Your task to perform on an android device: Open network settings Image 0: 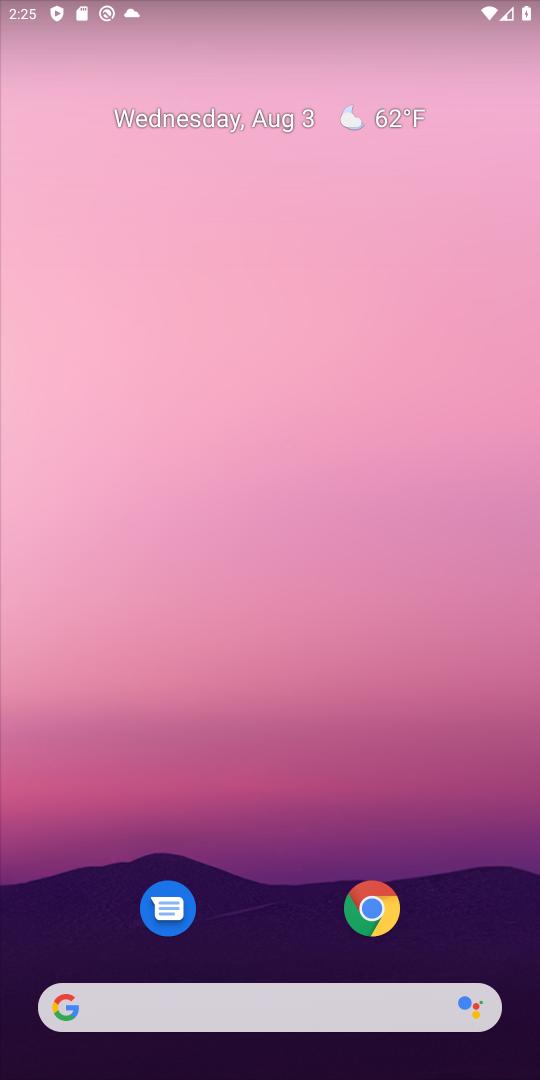
Step 0: drag from (242, 724) to (384, 248)
Your task to perform on an android device: Open network settings Image 1: 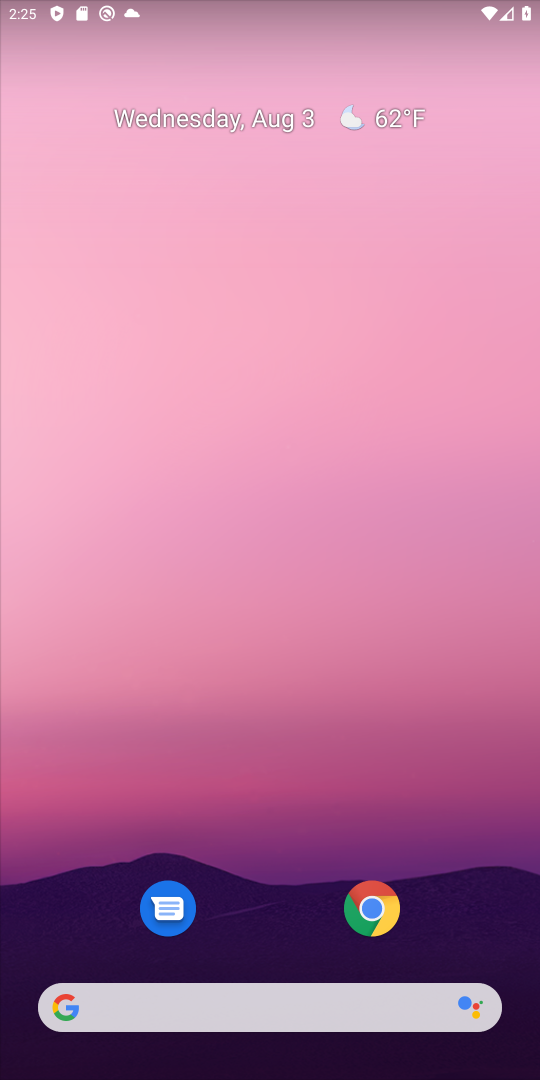
Step 1: drag from (298, 922) to (160, 126)
Your task to perform on an android device: Open network settings Image 2: 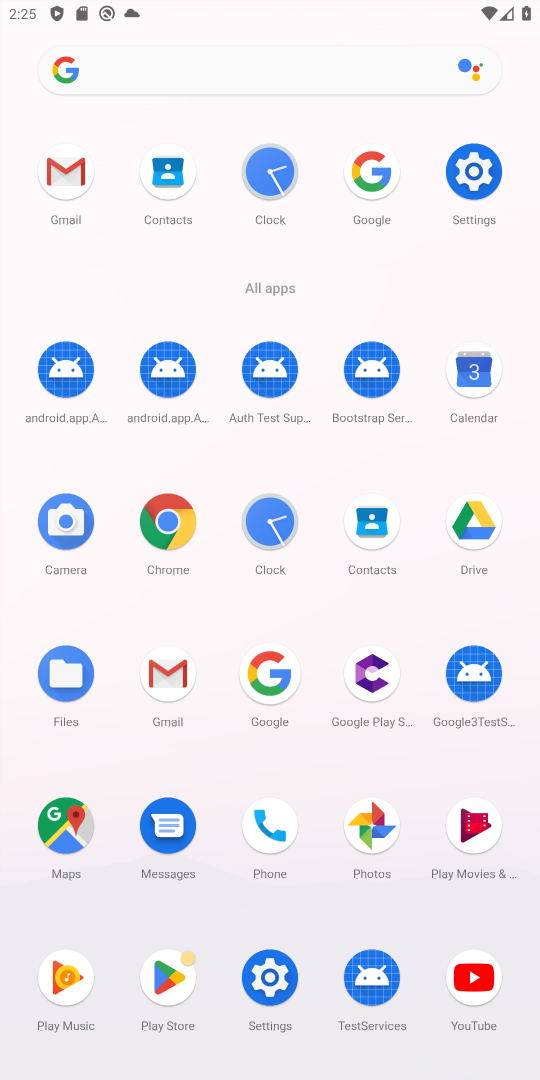
Step 2: click (484, 160)
Your task to perform on an android device: Open network settings Image 3: 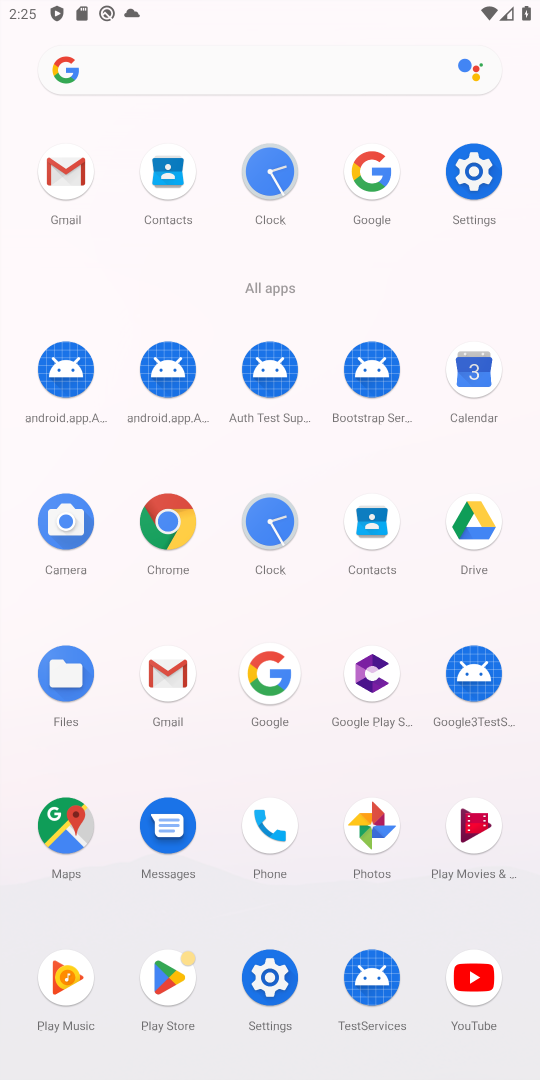
Step 3: click (484, 160)
Your task to perform on an android device: Open network settings Image 4: 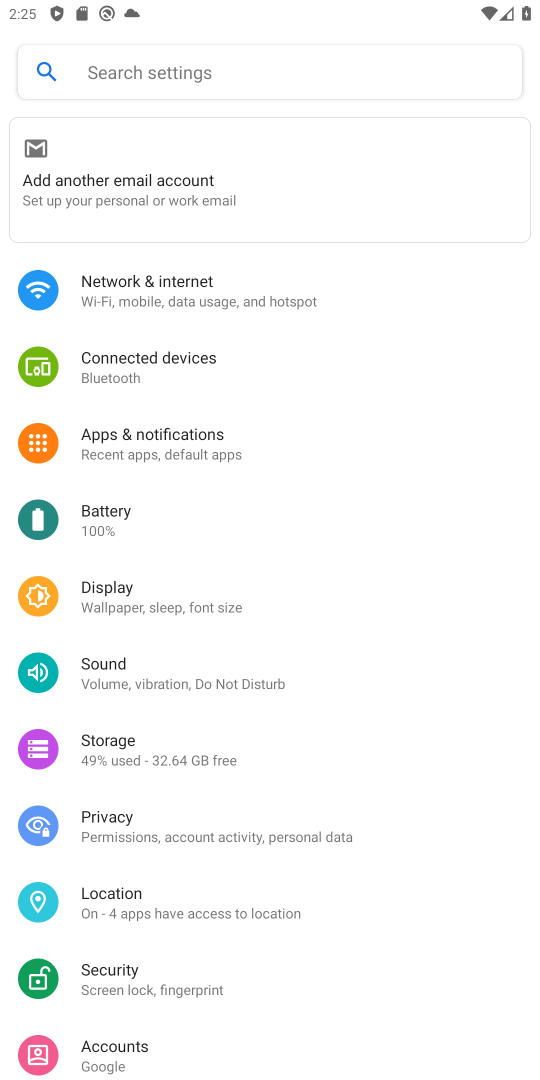
Step 4: click (377, 279)
Your task to perform on an android device: Open network settings Image 5: 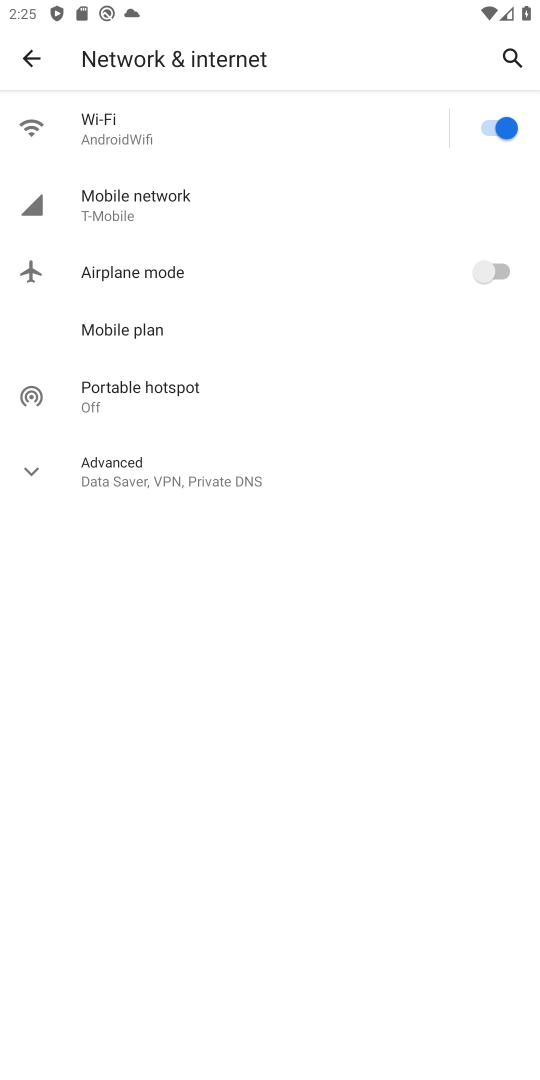
Step 5: task complete